Your task to perform on an android device: Show me productivity apps on the Play Store Image 0: 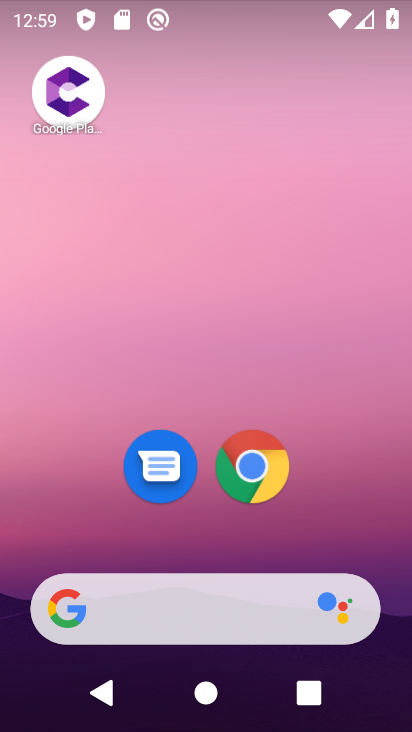
Step 0: drag from (213, 547) to (219, 203)
Your task to perform on an android device: Show me productivity apps on the Play Store Image 1: 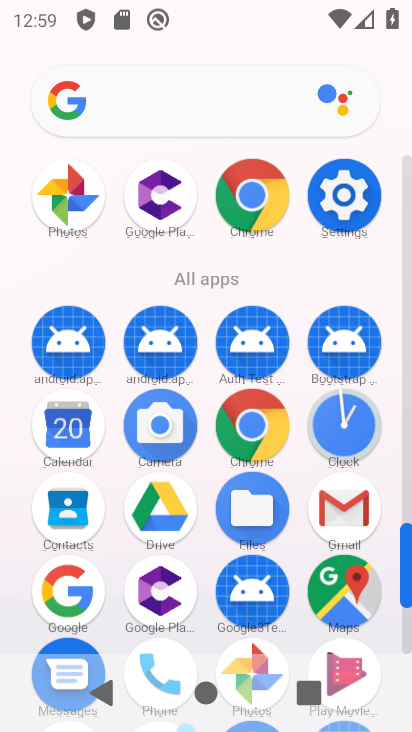
Step 1: drag from (194, 603) to (203, 256)
Your task to perform on an android device: Show me productivity apps on the Play Store Image 2: 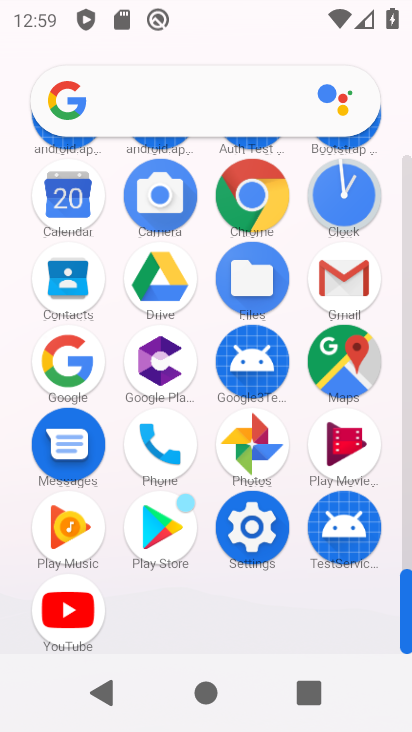
Step 2: click (151, 528)
Your task to perform on an android device: Show me productivity apps on the Play Store Image 3: 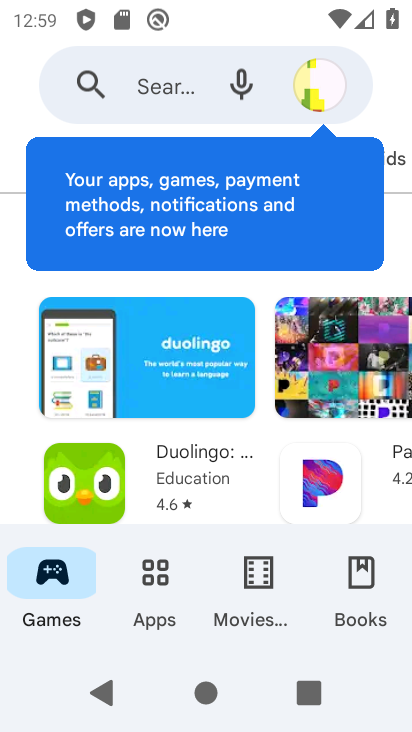
Step 3: click (151, 569)
Your task to perform on an android device: Show me productivity apps on the Play Store Image 4: 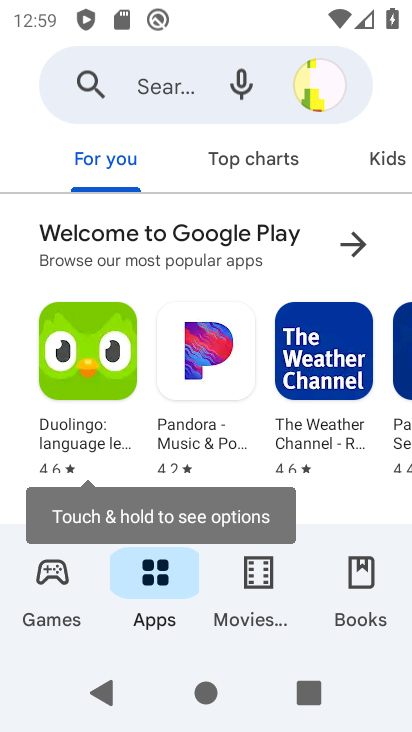
Step 4: drag from (249, 168) to (145, 149)
Your task to perform on an android device: Show me productivity apps on the Play Store Image 5: 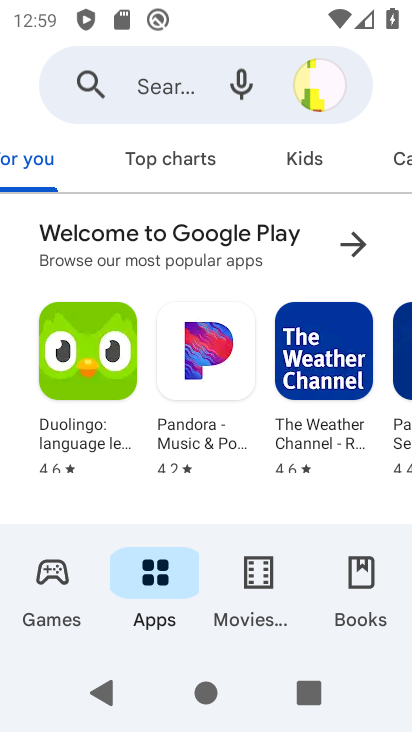
Step 5: drag from (330, 157) to (182, 158)
Your task to perform on an android device: Show me productivity apps on the Play Store Image 6: 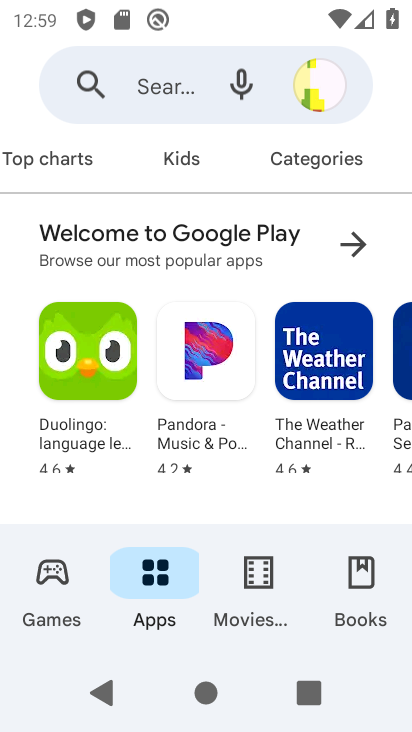
Step 6: click (340, 157)
Your task to perform on an android device: Show me productivity apps on the Play Store Image 7: 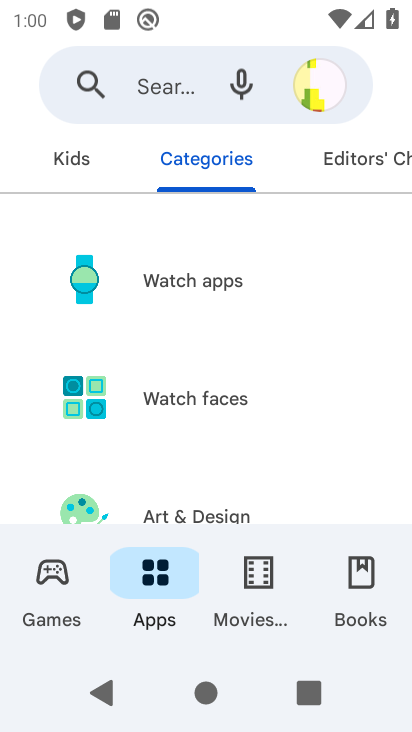
Step 7: drag from (284, 452) to (287, 231)
Your task to perform on an android device: Show me productivity apps on the Play Store Image 8: 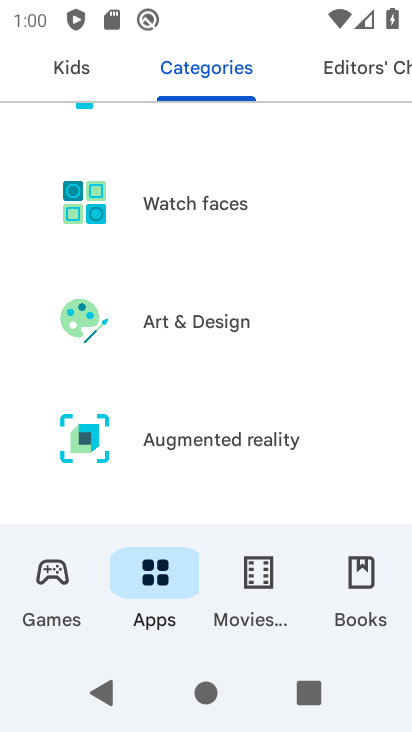
Step 8: drag from (279, 440) to (276, 213)
Your task to perform on an android device: Show me productivity apps on the Play Store Image 9: 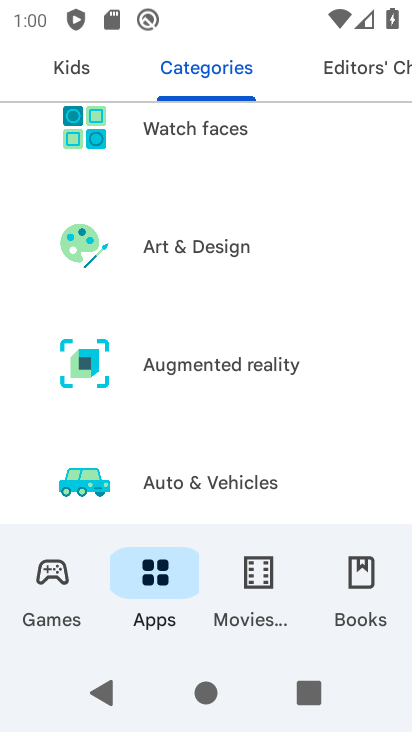
Step 9: drag from (274, 428) to (292, 216)
Your task to perform on an android device: Show me productivity apps on the Play Store Image 10: 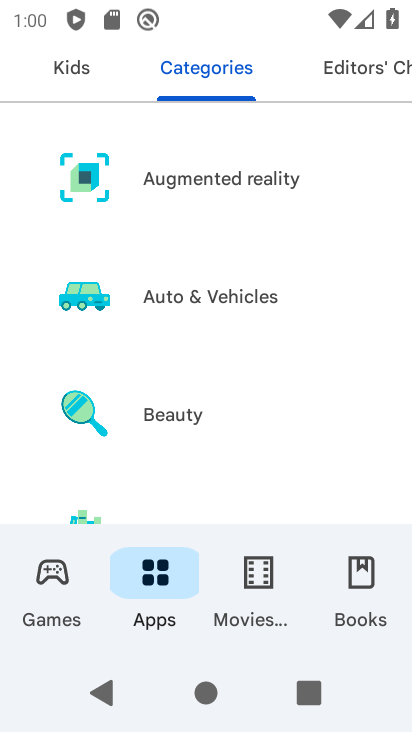
Step 10: drag from (299, 385) to (310, 222)
Your task to perform on an android device: Show me productivity apps on the Play Store Image 11: 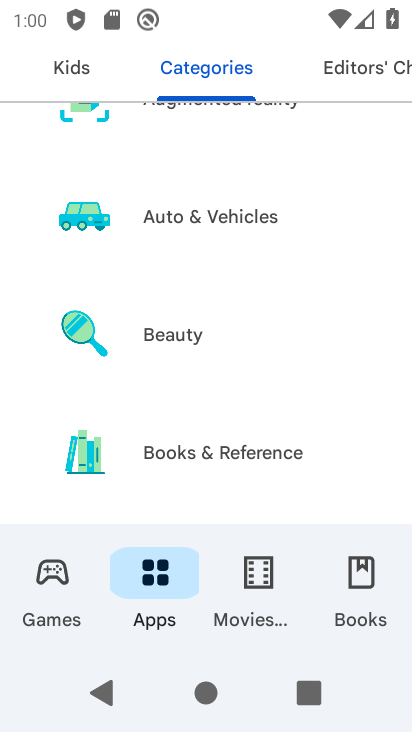
Step 11: drag from (310, 362) to (325, 212)
Your task to perform on an android device: Show me productivity apps on the Play Store Image 12: 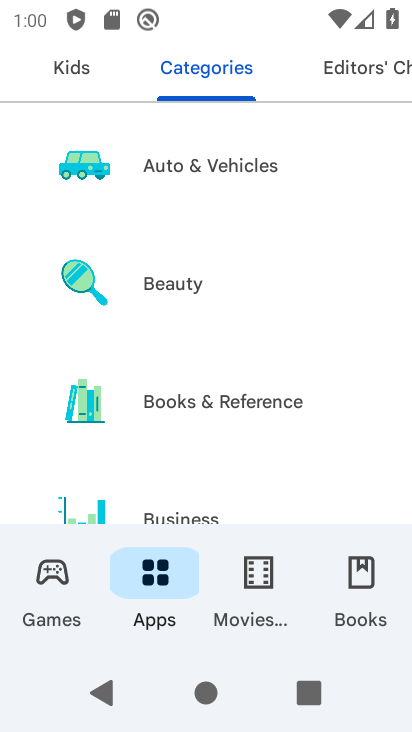
Step 12: drag from (276, 403) to (274, 255)
Your task to perform on an android device: Show me productivity apps on the Play Store Image 13: 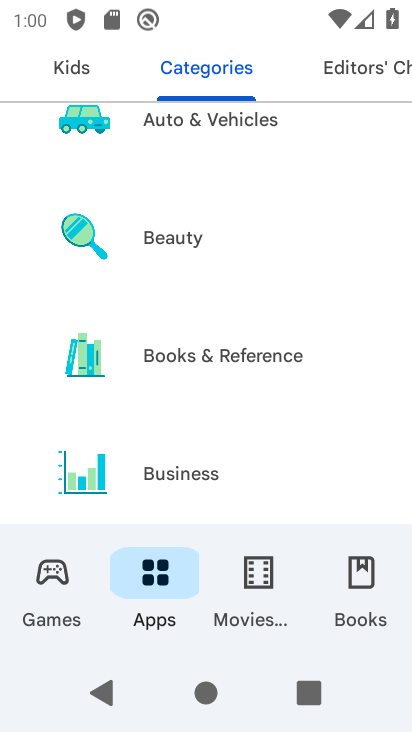
Step 13: drag from (271, 475) to (276, 328)
Your task to perform on an android device: Show me productivity apps on the Play Store Image 14: 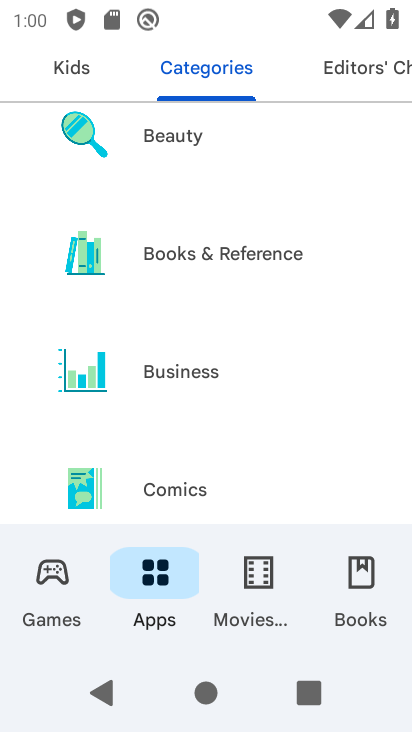
Step 14: drag from (257, 463) to (266, 280)
Your task to perform on an android device: Show me productivity apps on the Play Store Image 15: 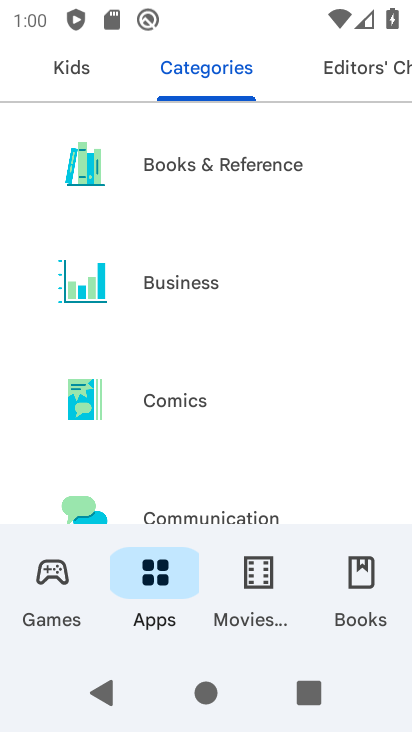
Step 15: drag from (277, 486) to (290, 271)
Your task to perform on an android device: Show me productivity apps on the Play Store Image 16: 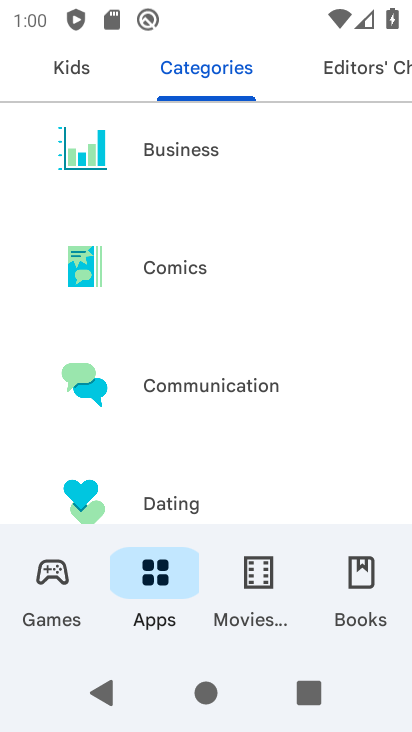
Step 16: drag from (253, 505) to (285, 264)
Your task to perform on an android device: Show me productivity apps on the Play Store Image 17: 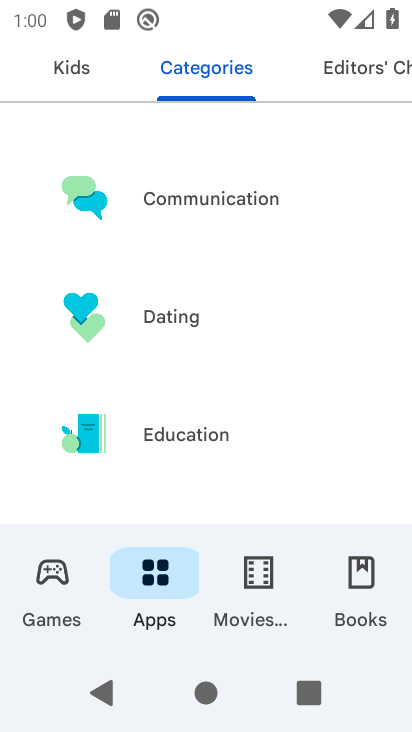
Step 17: drag from (278, 444) to (298, 220)
Your task to perform on an android device: Show me productivity apps on the Play Store Image 18: 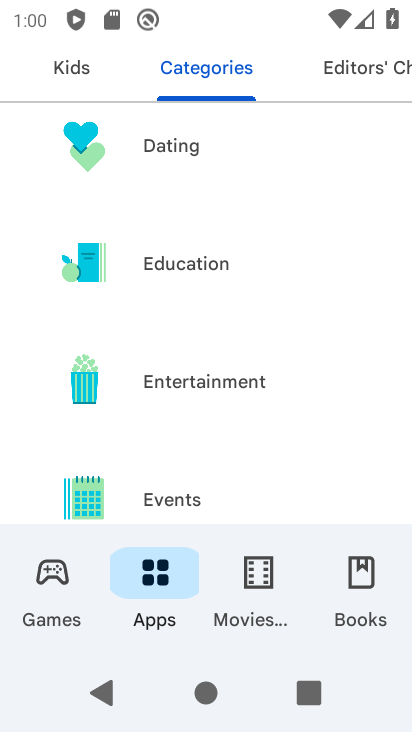
Step 18: drag from (268, 469) to (264, 191)
Your task to perform on an android device: Show me productivity apps on the Play Store Image 19: 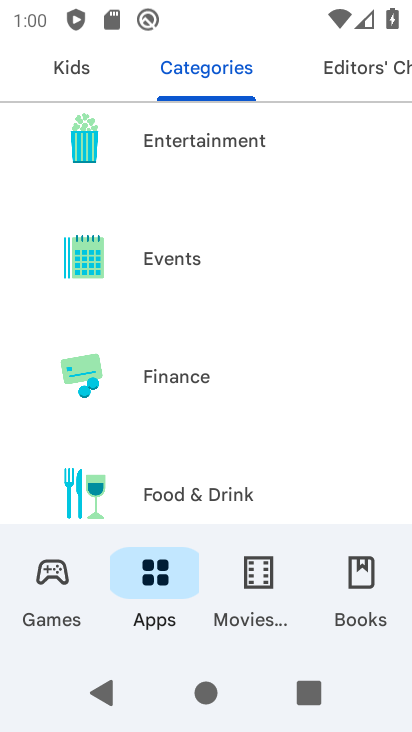
Step 19: drag from (247, 430) to (246, 230)
Your task to perform on an android device: Show me productivity apps on the Play Store Image 20: 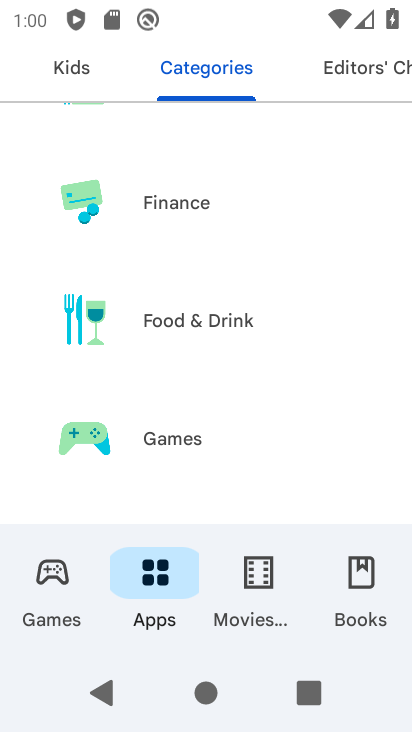
Step 20: drag from (246, 435) to (269, 275)
Your task to perform on an android device: Show me productivity apps on the Play Store Image 21: 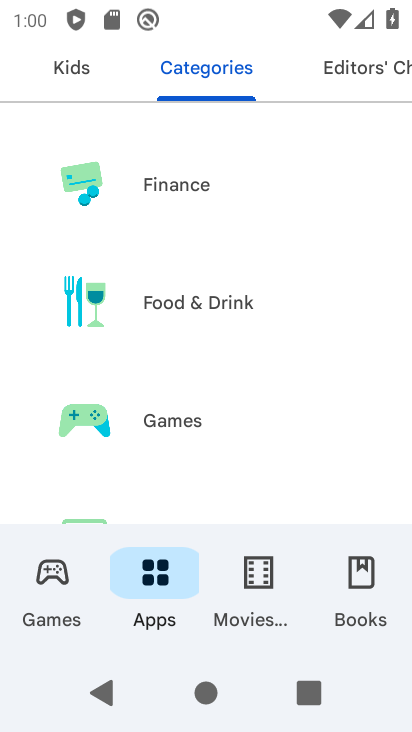
Step 21: drag from (252, 494) to (268, 250)
Your task to perform on an android device: Show me productivity apps on the Play Store Image 22: 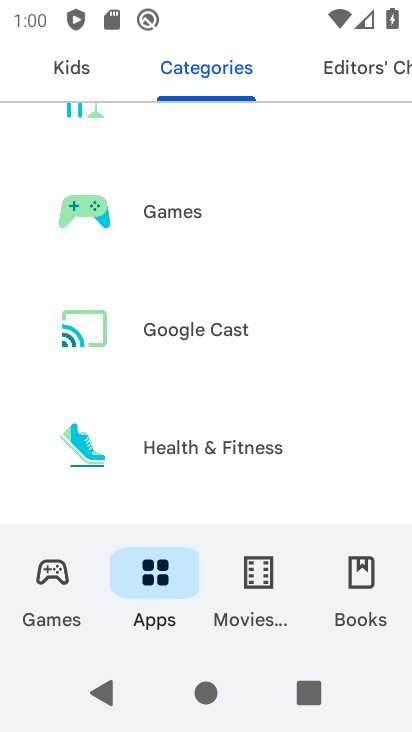
Step 22: drag from (265, 428) to (271, 193)
Your task to perform on an android device: Show me productivity apps on the Play Store Image 23: 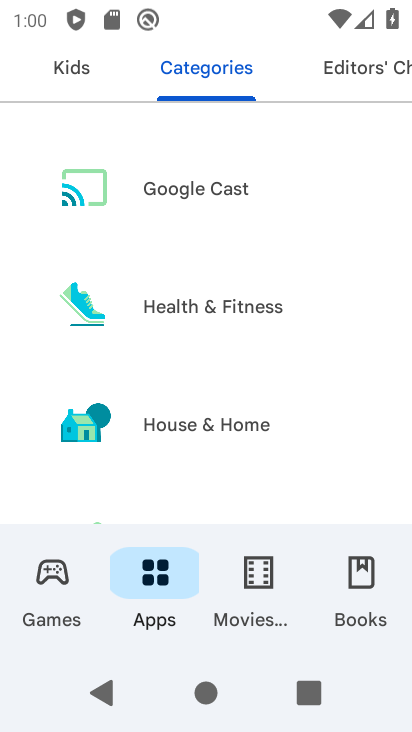
Step 23: drag from (273, 475) to (280, 145)
Your task to perform on an android device: Show me productivity apps on the Play Store Image 24: 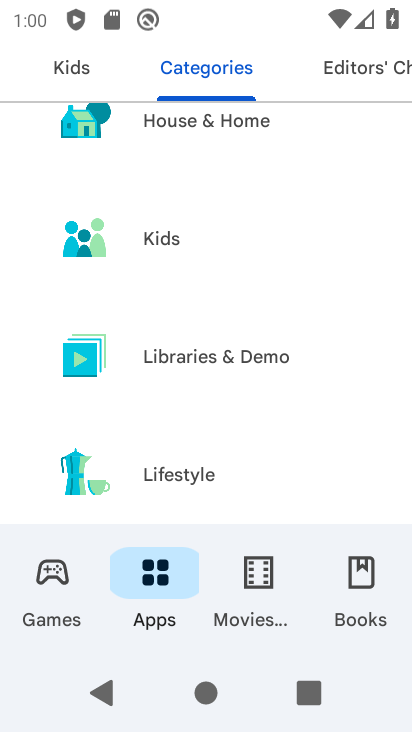
Step 24: drag from (284, 508) to (297, 273)
Your task to perform on an android device: Show me productivity apps on the Play Store Image 25: 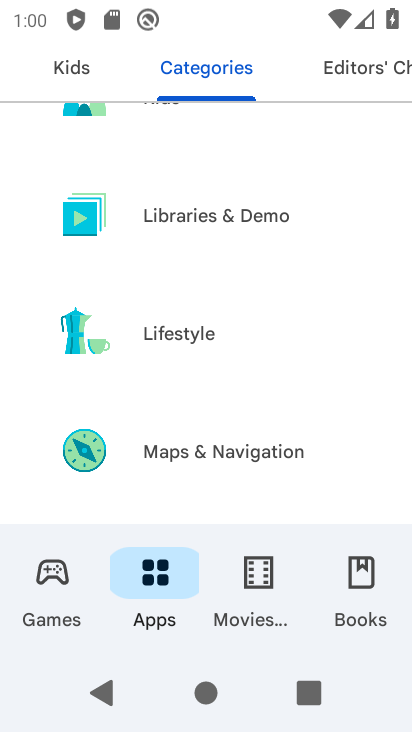
Step 25: drag from (299, 449) to (312, 241)
Your task to perform on an android device: Show me productivity apps on the Play Store Image 26: 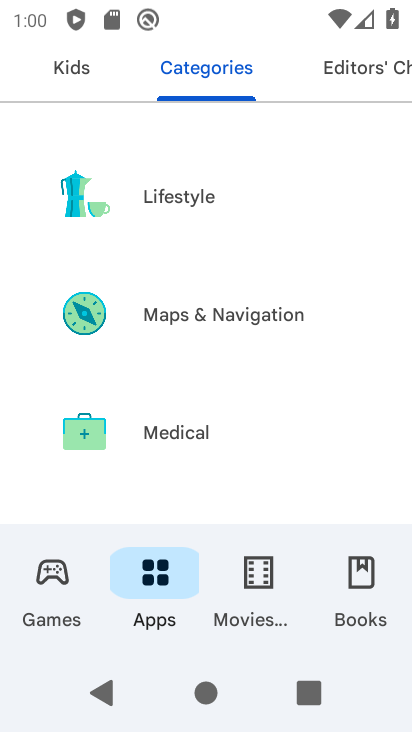
Step 26: drag from (288, 428) to (293, 232)
Your task to perform on an android device: Show me productivity apps on the Play Store Image 27: 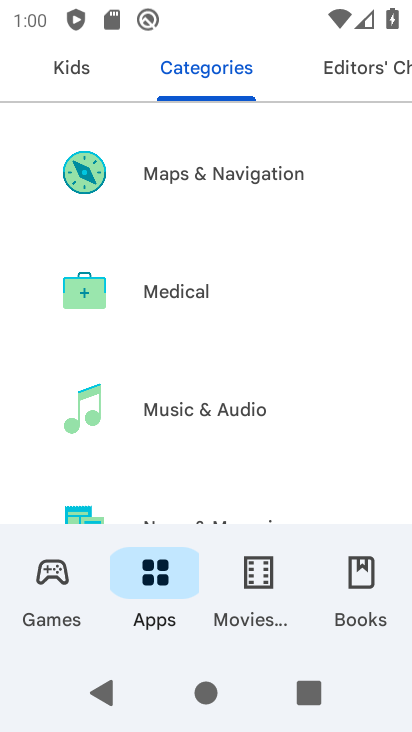
Step 27: drag from (234, 452) to (256, 317)
Your task to perform on an android device: Show me productivity apps on the Play Store Image 28: 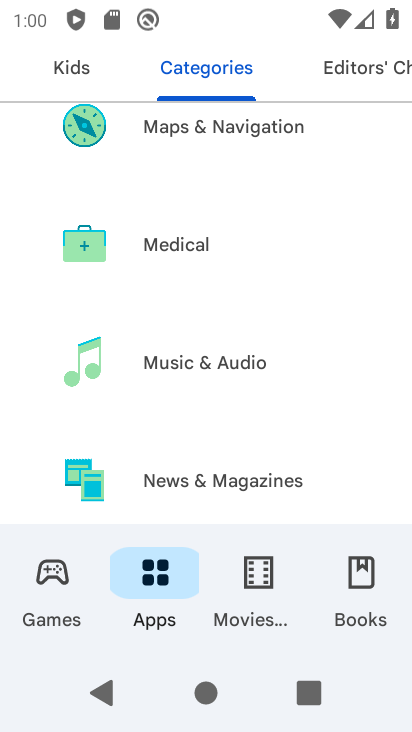
Step 28: drag from (256, 469) to (261, 256)
Your task to perform on an android device: Show me productivity apps on the Play Store Image 29: 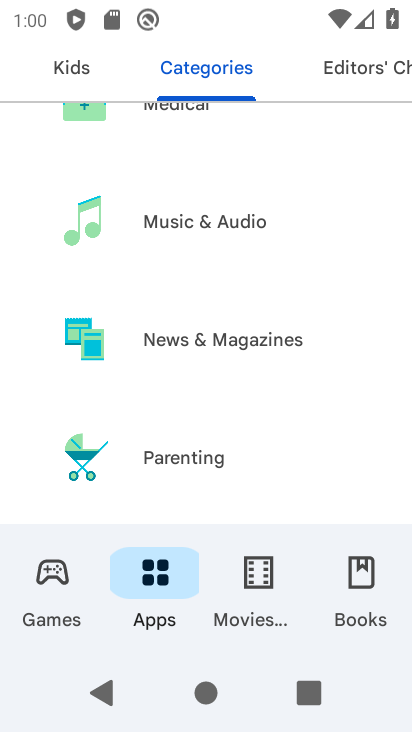
Step 29: drag from (244, 429) to (267, 253)
Your task to perform on an android device: Show me productivity apps on the Play Store Image 30: 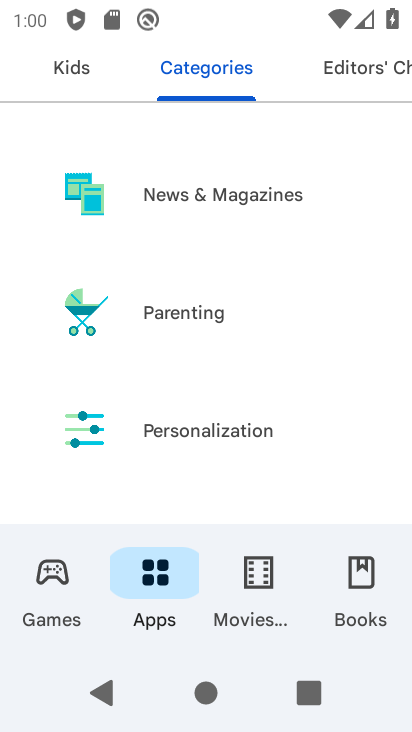
Step 30: drag from (269, 434) to (301, 249)
Your task to perform on an android device: Show me productivity apps on the Play Store Image 31: 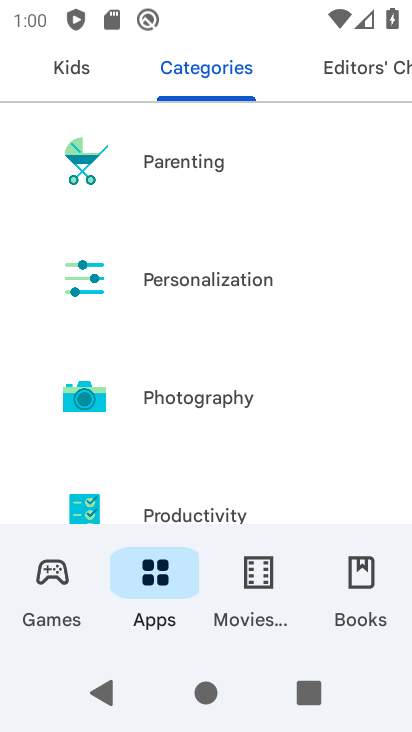
Step 31: drag from (251, 471) to (281, 311)
Your task to perform on an android device: Show me productivity apps on the Play Store Image 32: 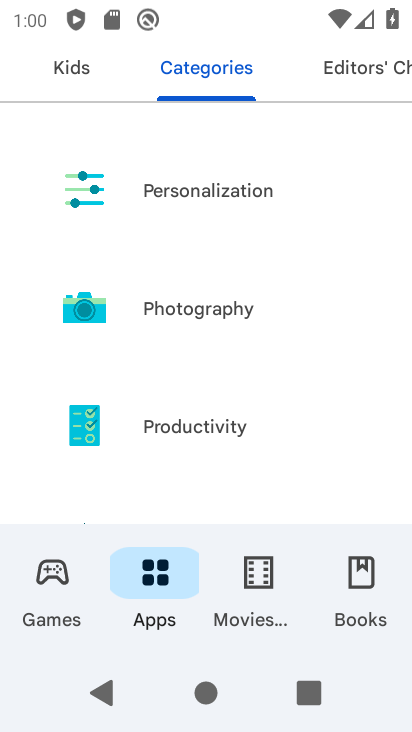
Step 32: click (250, 427)
Your task to perform on an android device: Show me productivity apps on the Play Store Image 33: 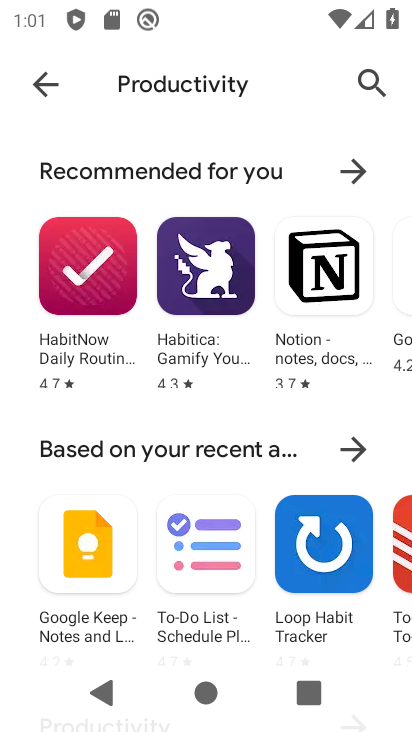
Step 33: task complete